Your task to perform on an android device: add a label to a message in the gmail app Image 0: 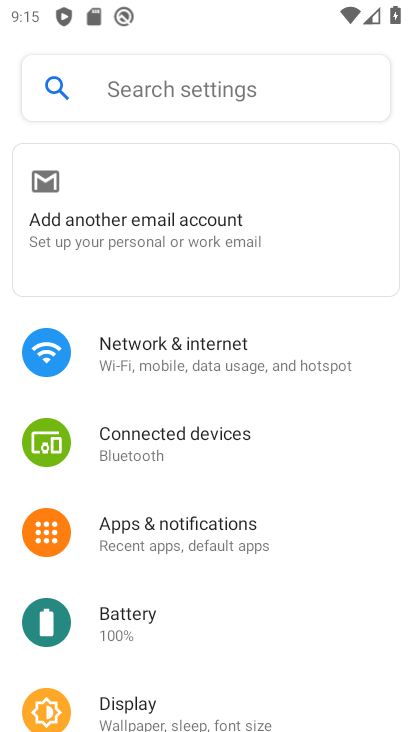
Step 0: press home button
Your task to perform on an android device: add a label to a message in the gmail app Image 1: 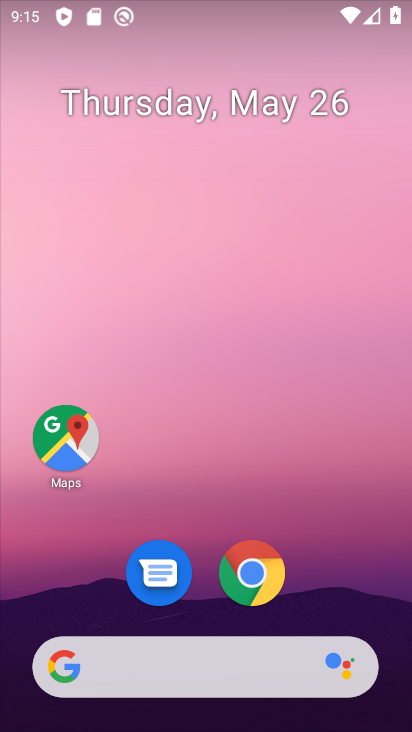
Step 1: drag from (329, 567) to (343, 111)
Your task to perform on an android device: add a label to a message in the gmail app Image 2: 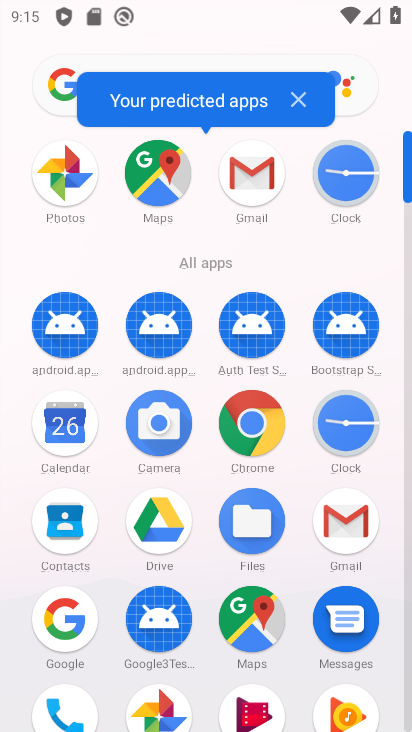
Step 2: click (257, 199)
Your task to perform on an android device: add a label to a message in the gmail app Image 3: 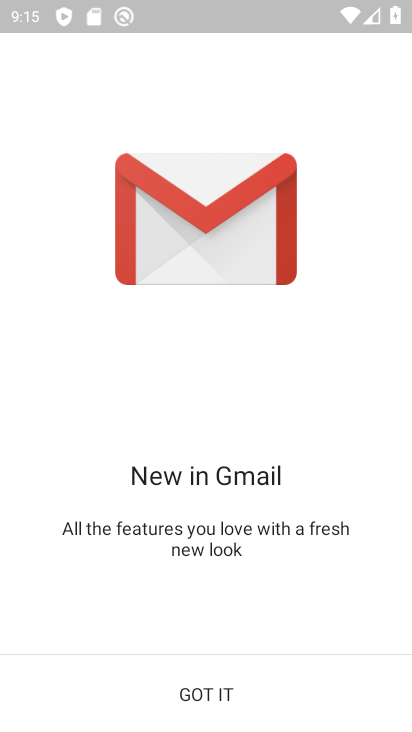
Step 3: click (286, 664)
Your task to perform on an android device: add a label to a message in the gmail app Image 4: 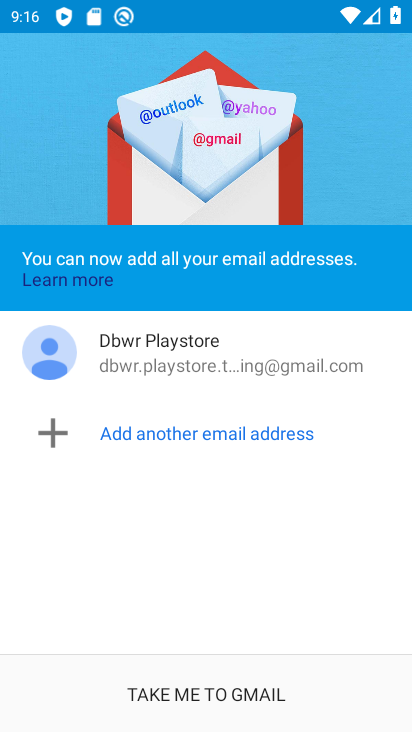
Step 4: click (286, 664)
Your task to perform on an android device: add a label to a message in the gmail app Image 5: 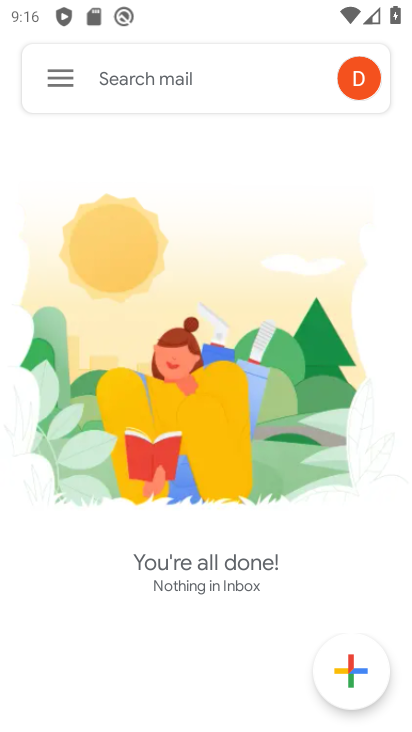
Step 5: click (59, 81)
Your task to perform on an android device: add a label to a message in the gmail app Image 6: 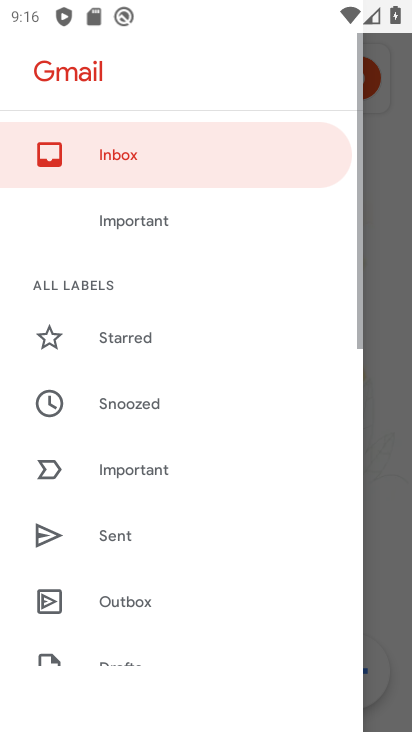
Step 6: drag from (280, 543) to (280, 155)
Your task to perform on an android device: add a label to a message in the gmail app Image 7: 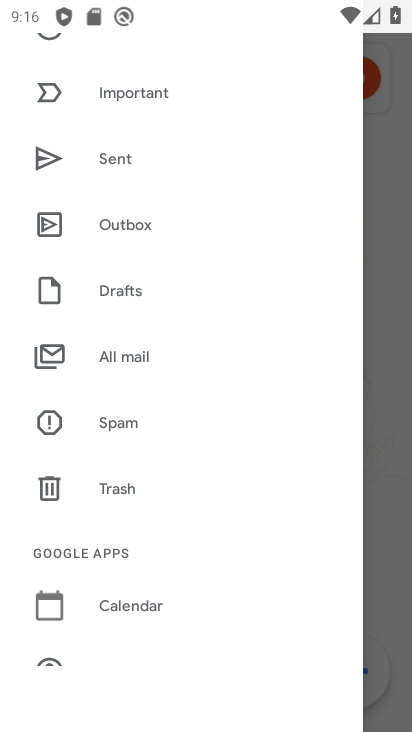
Step 7: drag from (179, 524) to (224, 214)
Your task to perform on an android device: add a label to a message in the gmail app Image 8: 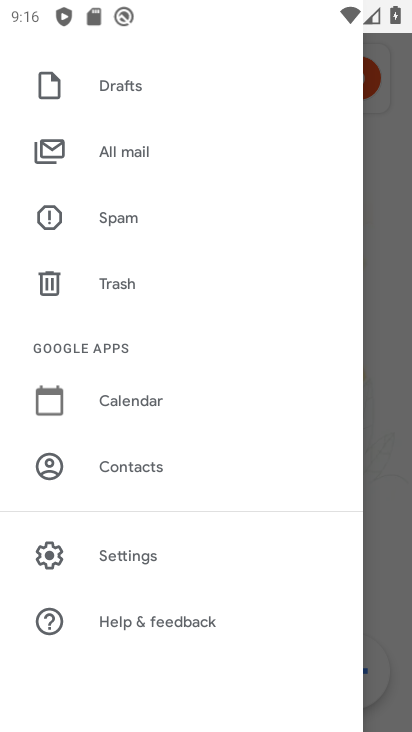
Step 8: click (171, 167)
Your task to perform on an android device: add a label to a message in the gmail app Image 9: 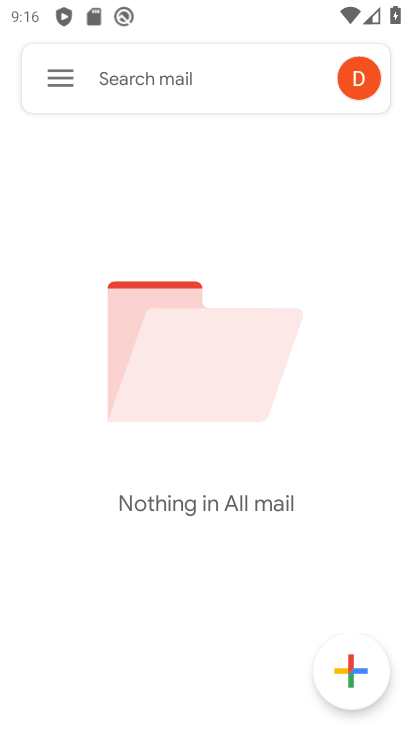
Step 9: task complete